Your task to perform on an android device: Search for pizza restaurants on Maps Image 0: 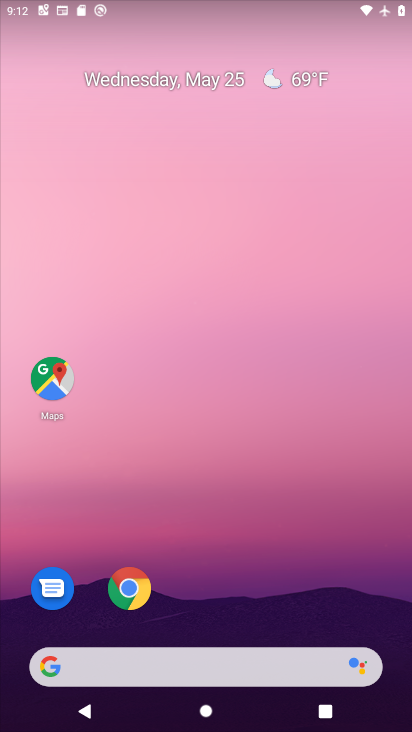
Step 0: drag from (374, 604) to (351, 180)
Your task to perform on an android device: Search for pizza restaurants on Maps Image 1: 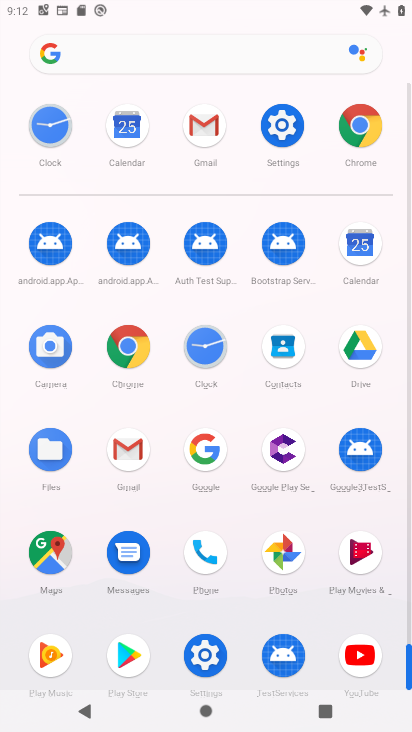
Step 1: click (57, 543)
Your task to perform on an android device: Search for pizza restaurants on Maps Image 2: 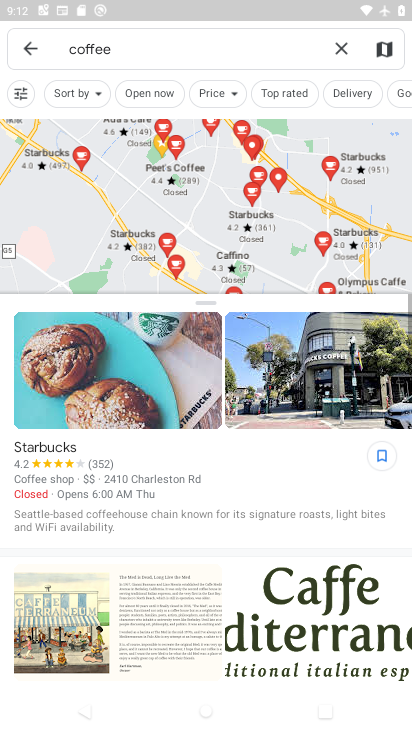
Step 2: click (234, 46)
Your task to perform on an android device: Search for pizza restaurants on Maps Image 3: 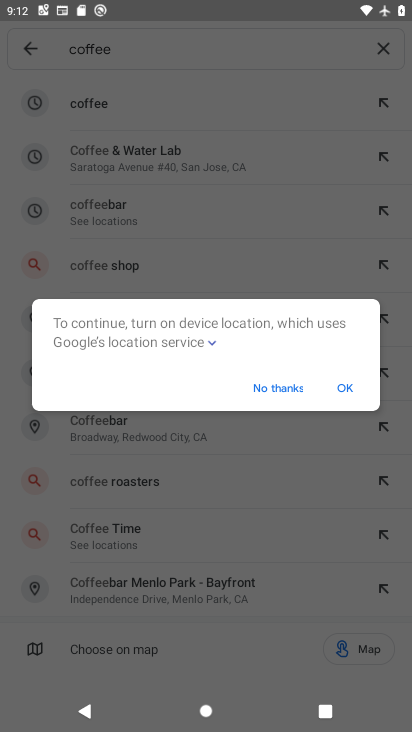
Step 3: click (276, 392)
Your task to perform on an android device: Search for pizza restaurants on Maps Image 4: 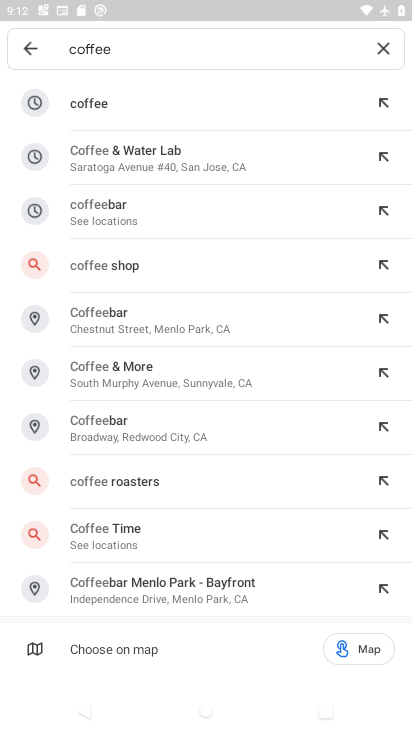
Step 4: click (377, 52)
Your task to perform on an android device: Search for pizza restaurants on Maps Image 5: 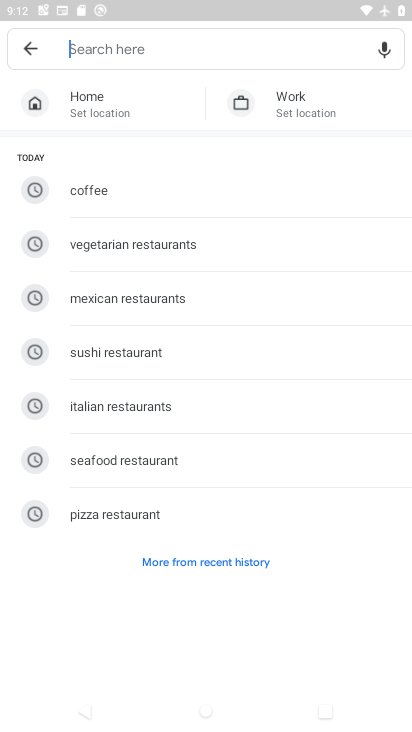
Step 5: click (180, 37)
Your task to perform on an android device: Search for pizza restaurants on Maps Image 6: 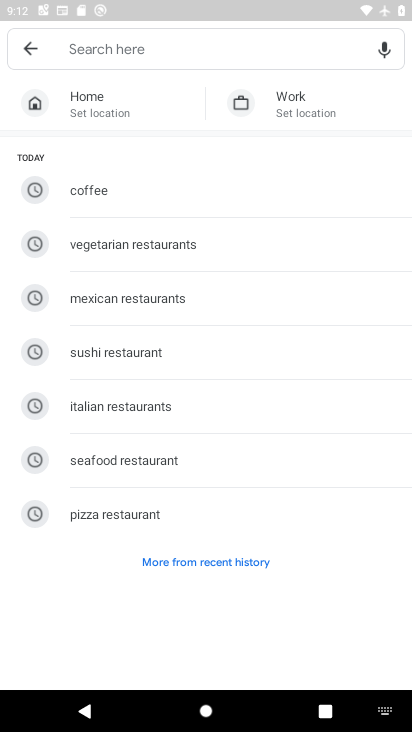
Step 6: type "pizzaa restaurants"
Your task to perform on an android device: Search for pizza restaurants on Maps Image 7: 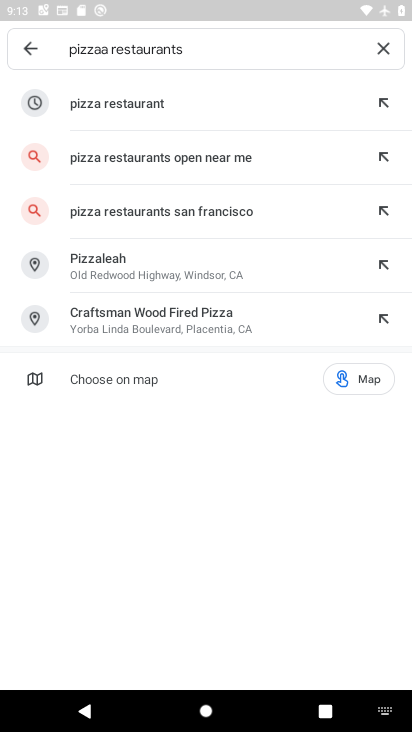
Step 7: click (158, 103)
Your task to perform on an android device: Search for pizza restaurants on Maps Image 8: 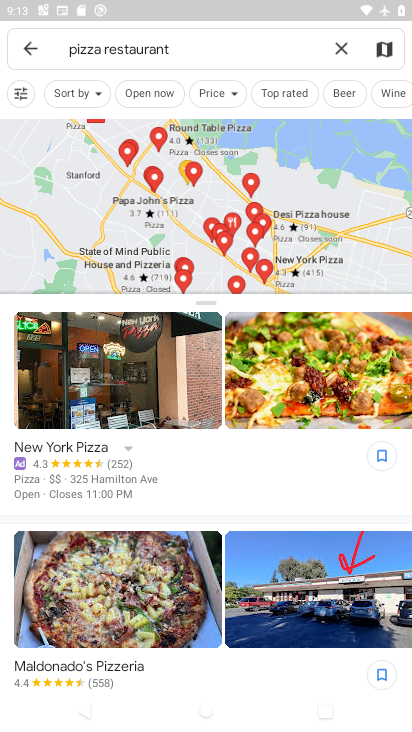
Step 8: task complete